Your task to perform on an android device: Toggle the flashlight Image 0: 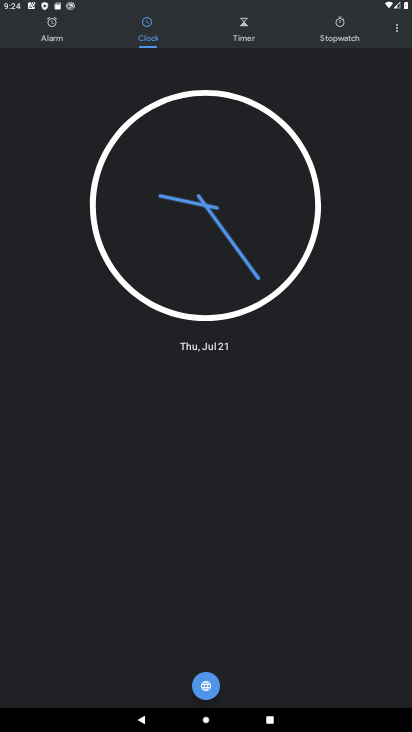
Step 0: press home button
Your task to perform on an android device: Toggle the flashlight Image 1: 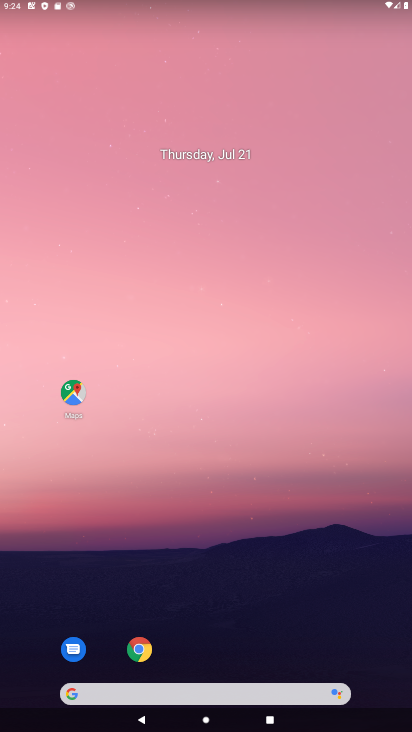
Step 1: drag from (243, 649) to (194, 4)
Your task to perform on an android device: Toggle the flashlight Image 2: 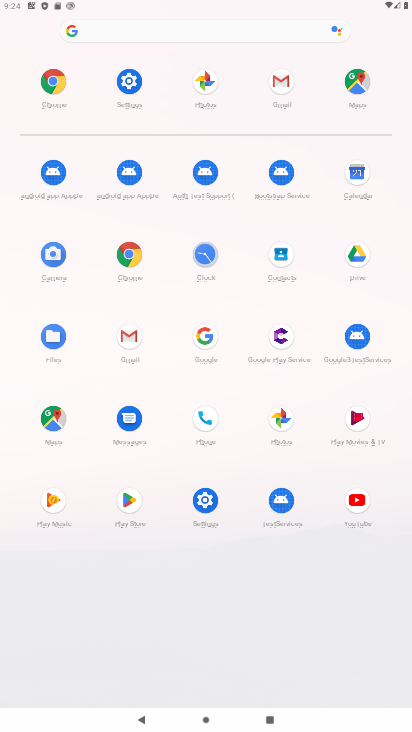
Step 2: click (194, 520)
Your task to perform on an android device: Toggle the flashlight Image 3: 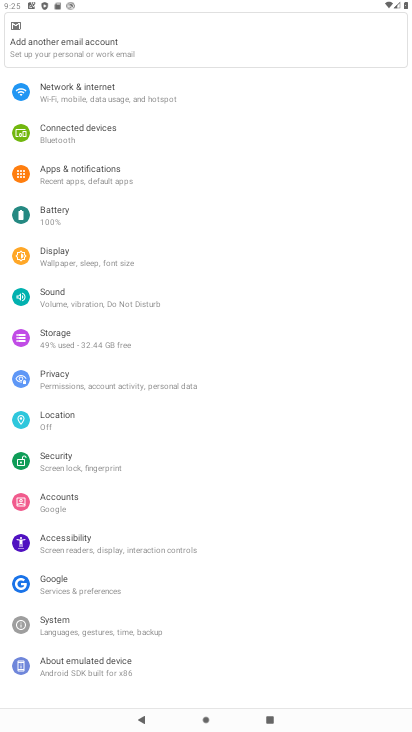
Step 3: drag from (149, 75) to (167, 418)
Your task to perform on an android device: Toggle the flashlight Image 4: 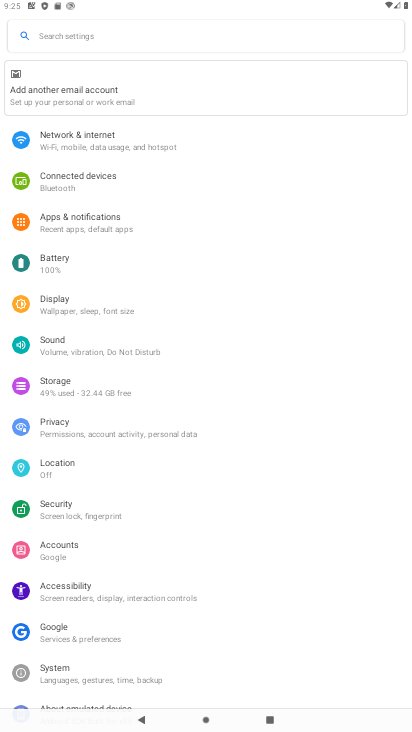
Step 4: click (159, 36)
Your task to perform on an android device: Toggle the flashlight Image 5: 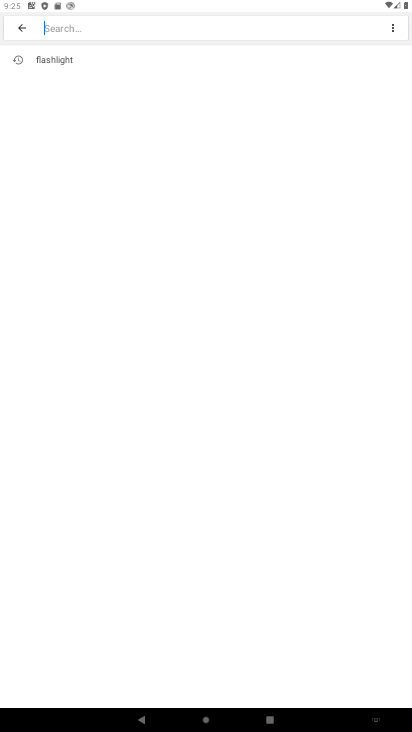
Step 5: type "flashlight"
Your task to perform on an android device: Toggle the flashlight Image 6: 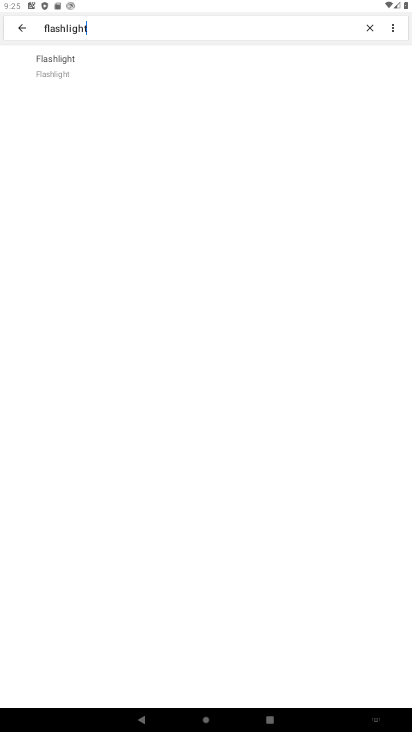
Step 6: click (78, 42)
Your task to perform on an android device: Toggle the flashlight Image 7: 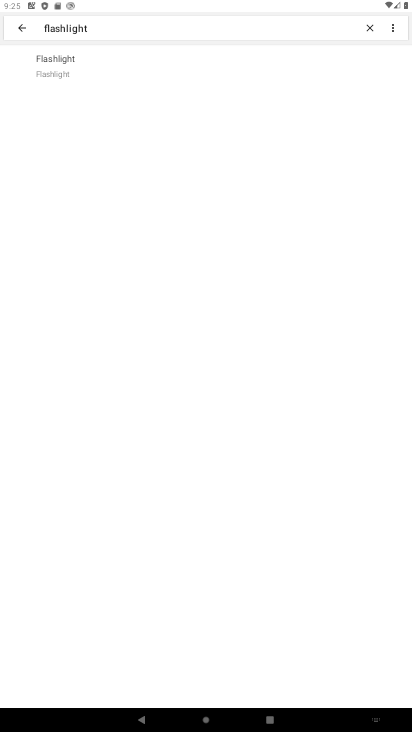
Step 7: task complete